Your task to perform on an android device: Show me the alarms in the clock app Image 0: 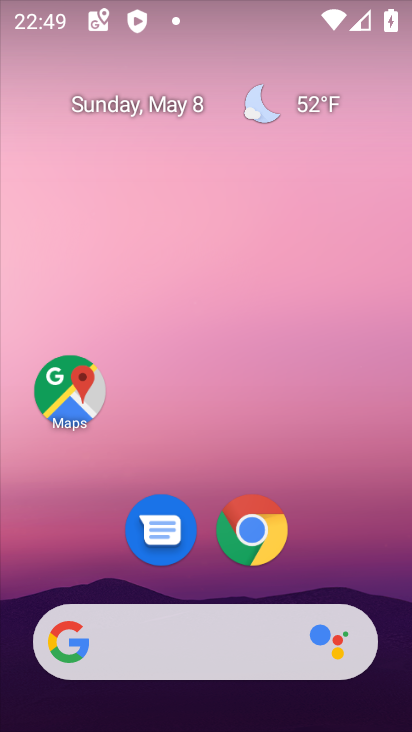
Step 0: drag from (354, 540) to (363, 129)
Your task to perform on an android device: Show me the alarms in the clock app Image 1: 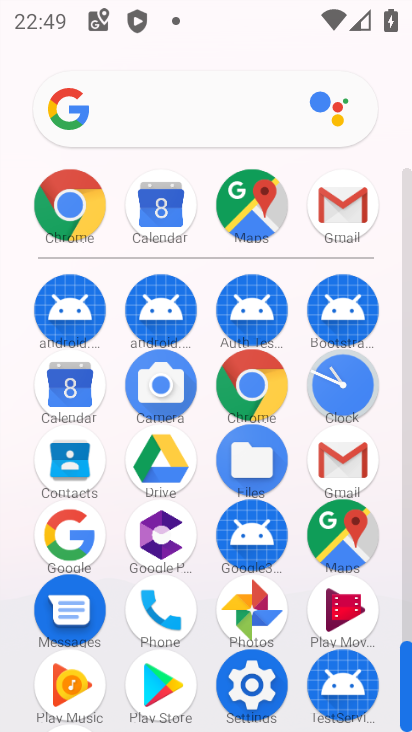
Step 1: click (368, 391)
Your task to perform on an android device: Show me the alarms in the clock app Image 2: 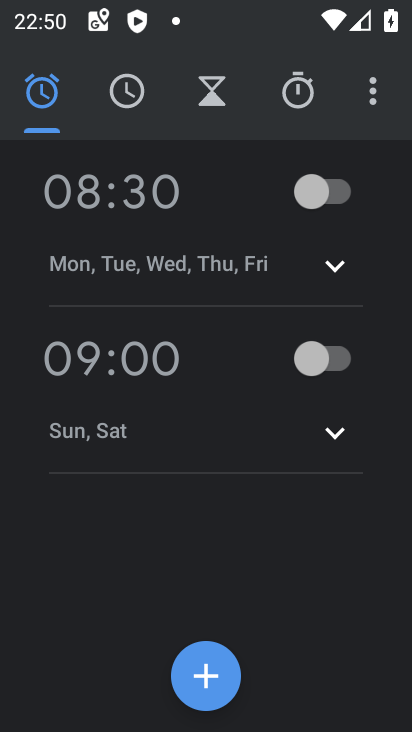
Step 2: click (131, 101)
Your task to perform on an android device: Show me the alarms in the clock app Image 3: 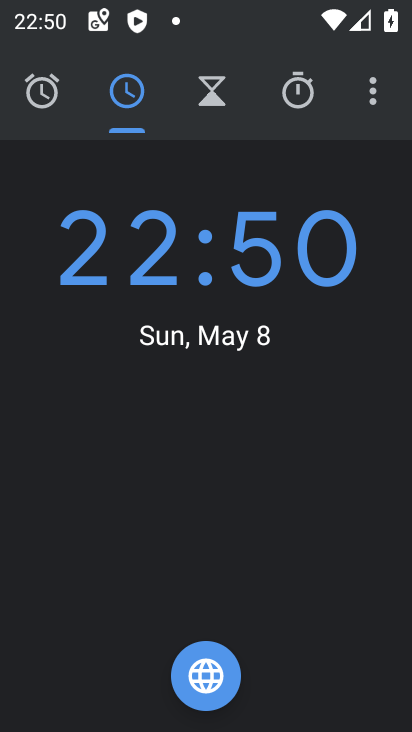
Step 3: click (26, 104)
Your task to perform on an android device: Show me the alarms in the clock app Image 4: 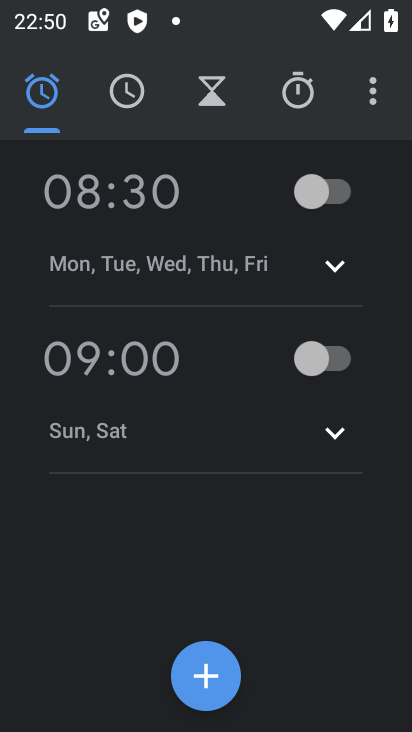
Step 4: task complete